Your task to perform on an android device: change timer sound Image 0: 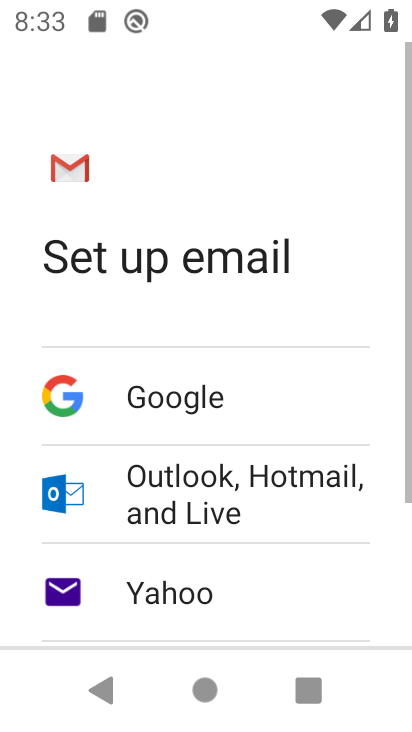
Step 0: press home button
Your task to perform on an android device: change timer sound Image 1: 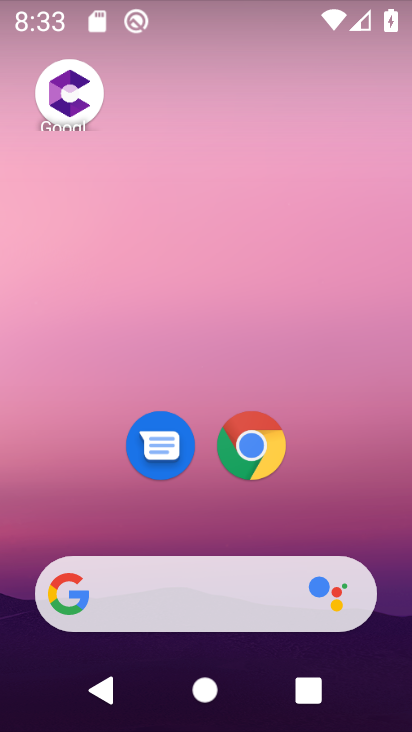
Step 1: drag from (324, 502) to (271, 86)
Your task to perform on an android device: change timer sound Image 2: 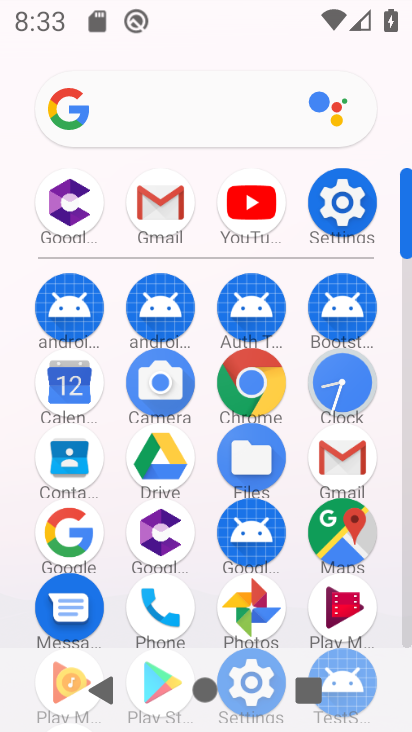
Step 2: click (344, 388)
Your task to perform on an android device: change timer sound Image 3: 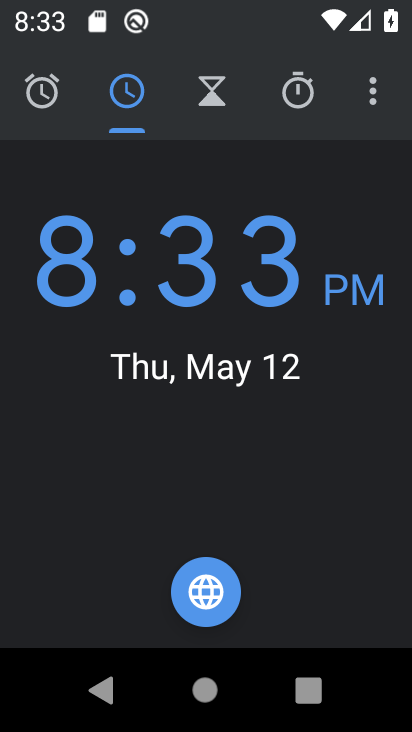
Step 3: click (373, 88)
Your task to perform on an android device: change timer sound Image 4: 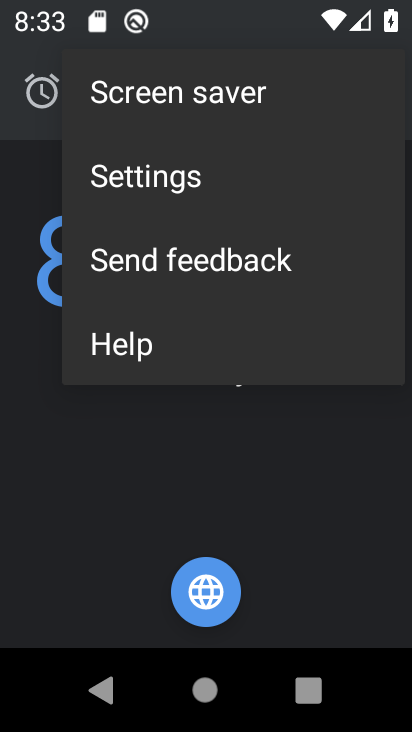
Step 4: click (140, 173)
Your task to perform on an android device: change timer sound Image 5: 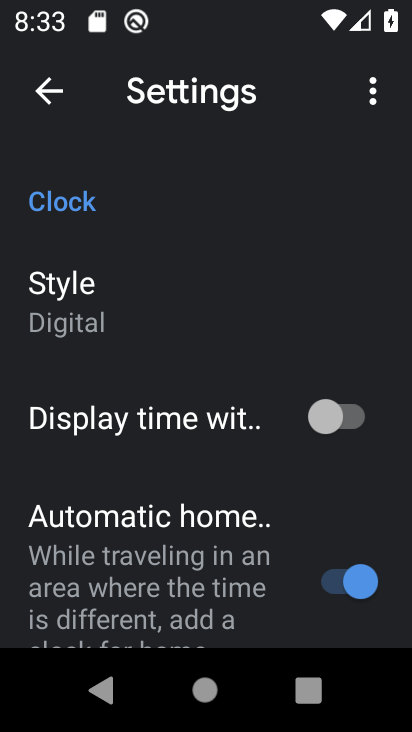
Step 5: drag from (149, 586) to (163, 138)
Your task to perform on an android device: change timer sound Image 6: 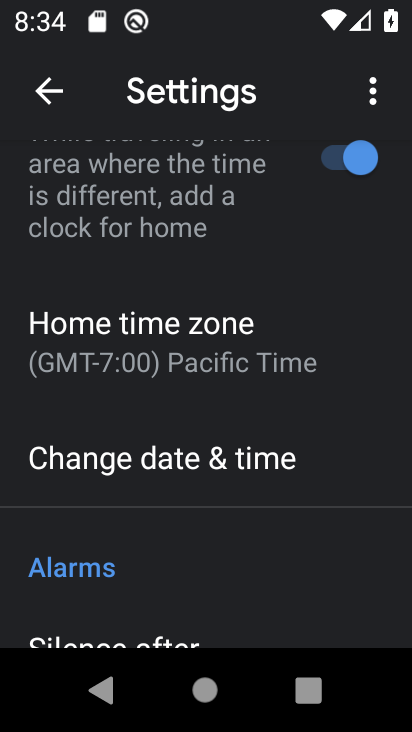
Step 6: drag from (177, 583) to (197, 228)
Your task to perform on an android device: change timer sound Image 7: 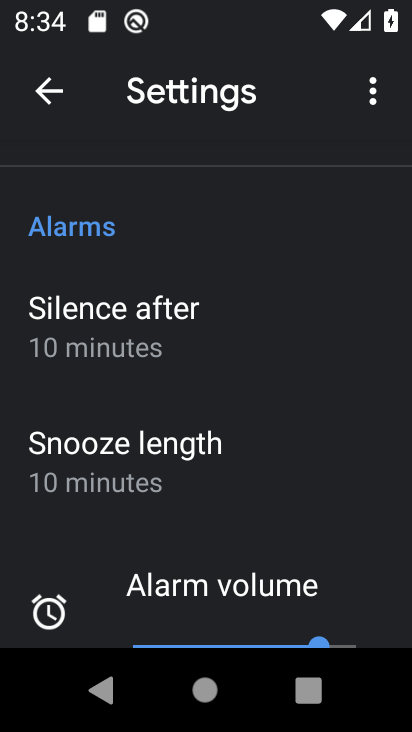
Step 7: drag from (185, 618) to (193, 272)
Your task to perform on an android device: change timer sound Image 8: 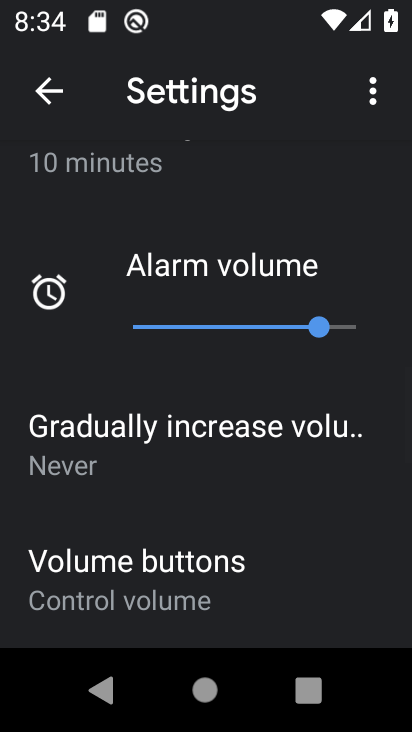
Step 8: drag from (174, 611) to (202, 308)
Your task to perform on an android device: change timer sound Image 9: 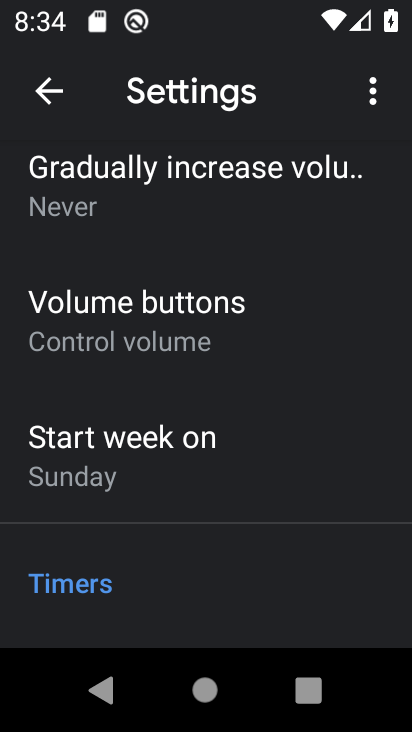
Step 9: drag from (176, 576) to (163, 263)
Your task to perform on an android device: change timer sound Image 10: 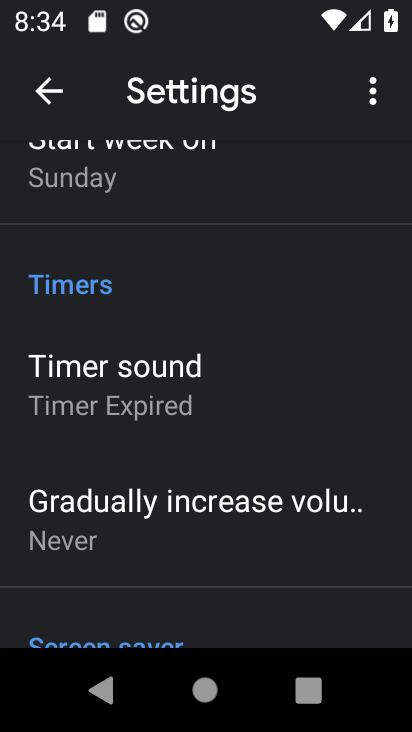
Step 10: click (131, 390)
Your task to perform on an android device: change timer sound Image 11: 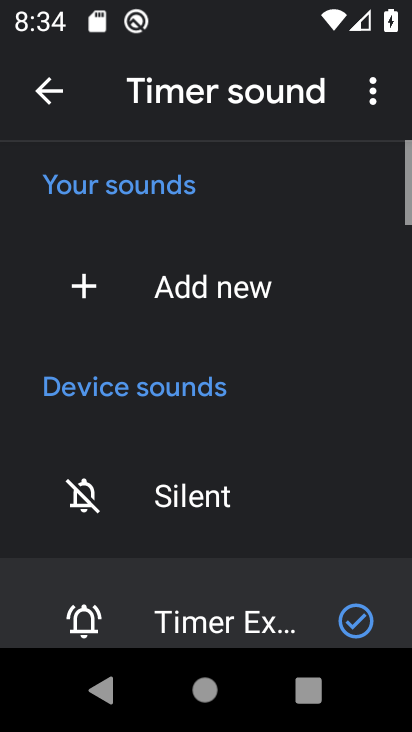
Step 11: drag from (173, 582) to (176, 168)
Your task to perform on an android device: change timer sound Image 12: 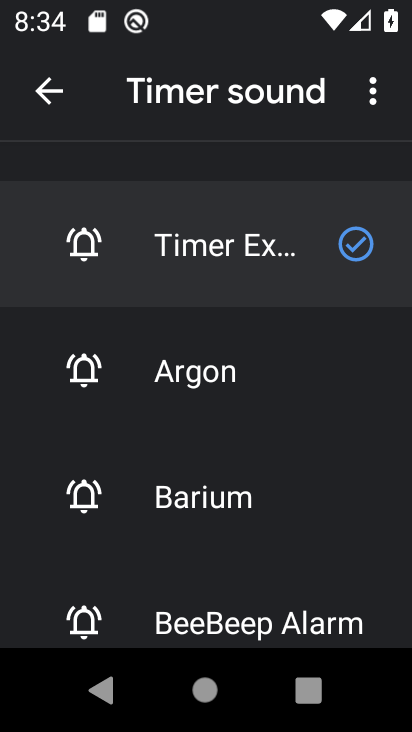
Step 12: drag from (224, 581) to (243, 247)
Your task to perform on an android device: change timer sound Image 13: 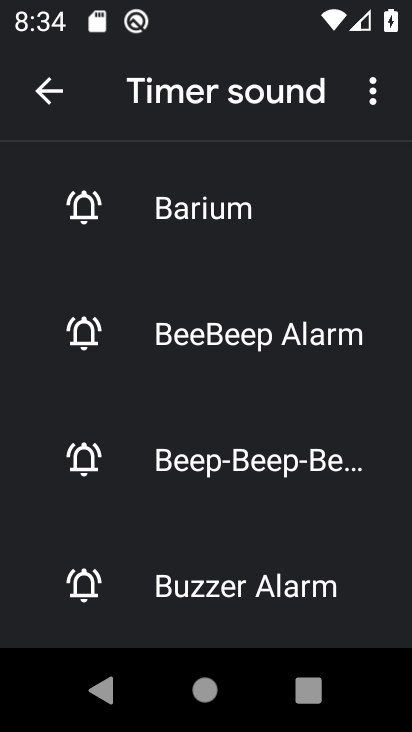
Step 13: click (207, 467)
Your task to perform on an android device: change timer sound Image 14: 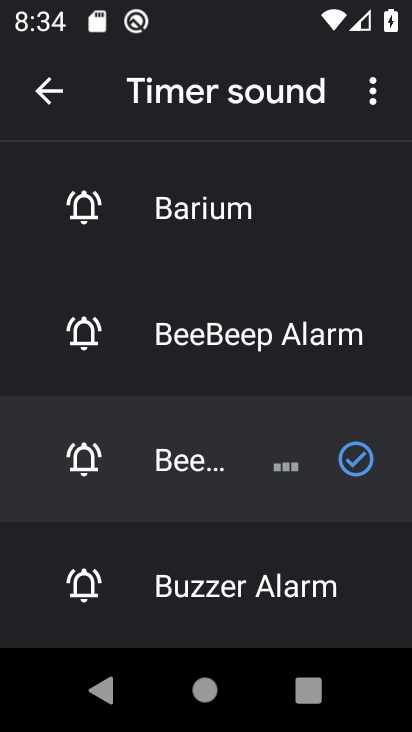
Step 14: task complete